Your task to perform on an android device: Toggle the flashlight Image 0: 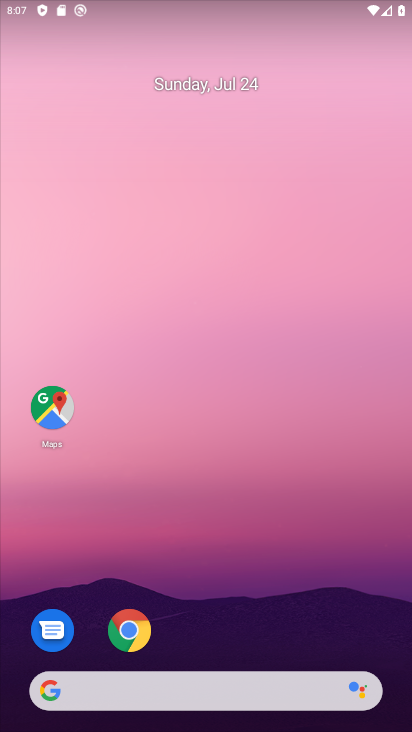
Step 0: drag from (279, 686) to (284, 270)
Your task to perform on an android device: Toggle the flashlight Image 1: 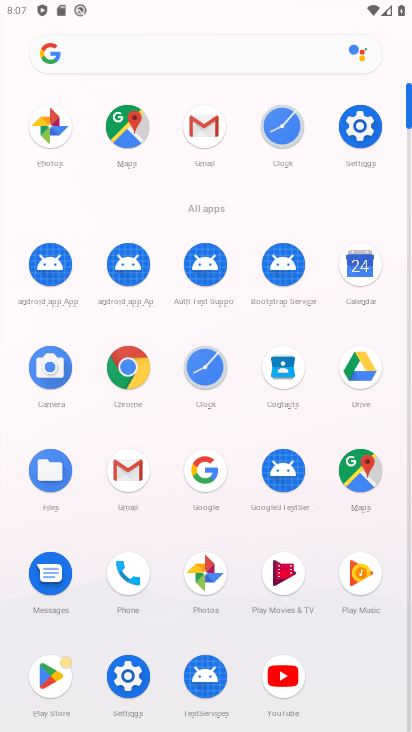
Step 1: click (368, 125)
Your task to perform on an android device: Toggle the flashlight Image 2: 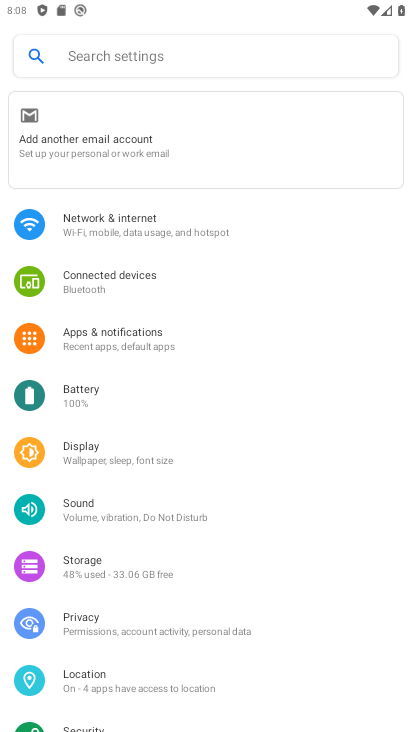
Step 2: task complete